Your task to perform on an android device: Go to battery settings Image 0: 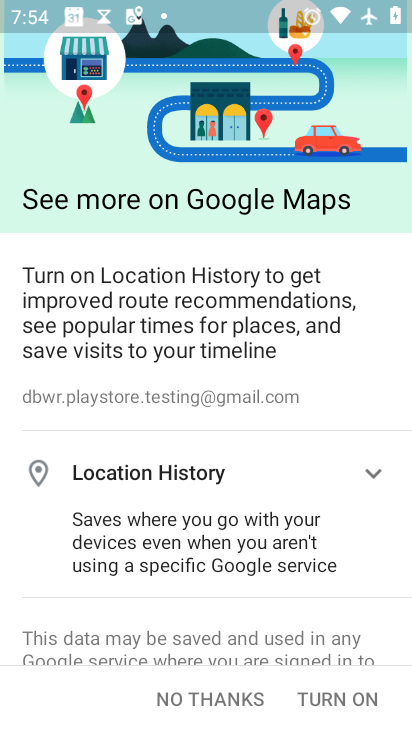
Step 0: click (242, 695)
Your task to perform on an android device: Go to battery settings Image 1: 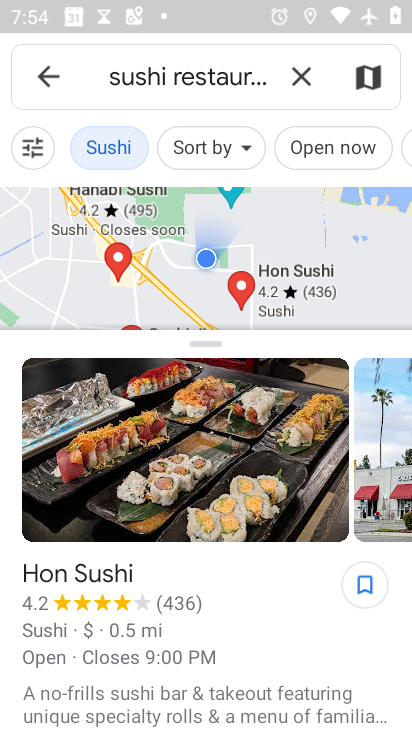
Step 1: press home button
Your task to perform on an android device: Go to battery settings Image 2: 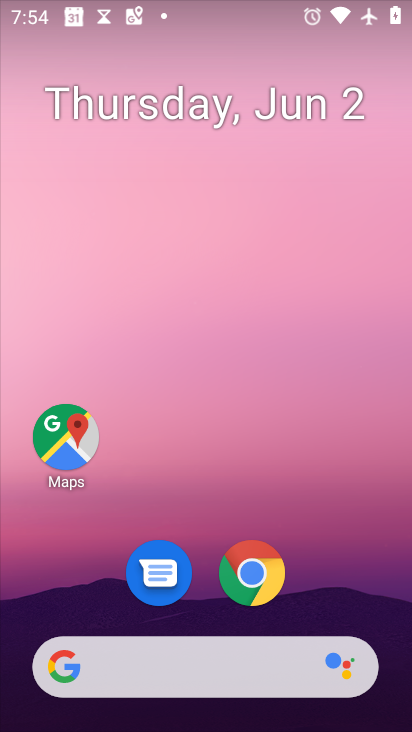
Step 2: drag from (174, 667) to (266, 178)
Your task to perform on an android device: Go to battery settings Image 3: 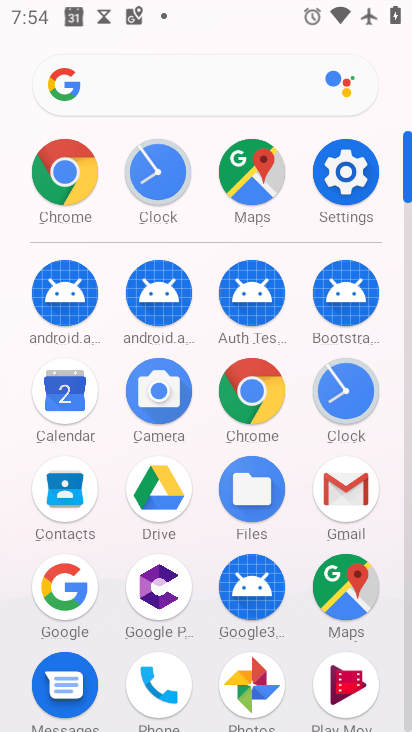
Step 3: click (342, 172)
Your task to perform on an android device: Go to battery settings Image 4: 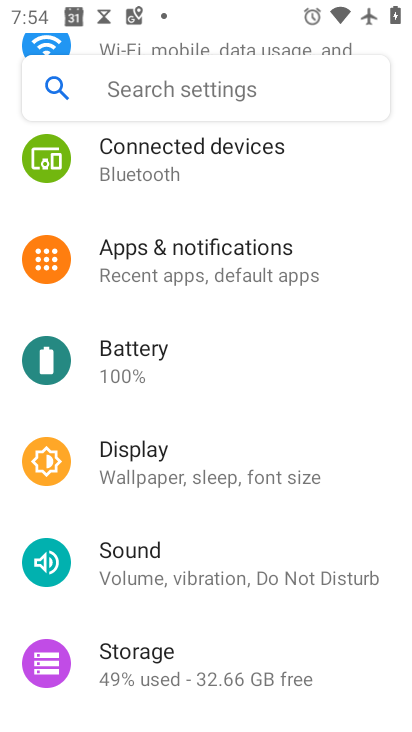
Step 4: click (137, 364)
Your task to perform on an android device: Go to battery settings Image 5: 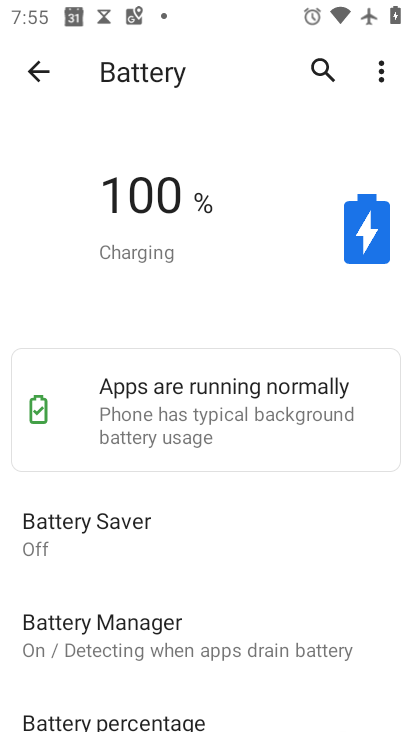
Step 5: task complete